Your task to perform on an android device: Go to privacy settings Image 0: 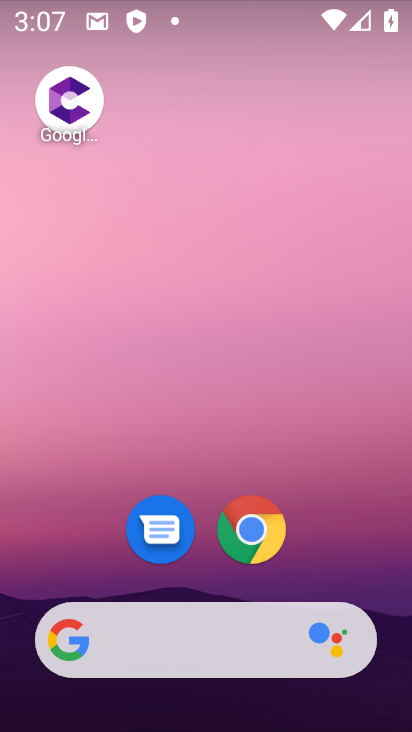
Step 0: drag from (163, 594) to (201, 49)
Your task to perform on an android device: Go to privacy settings Image 1: 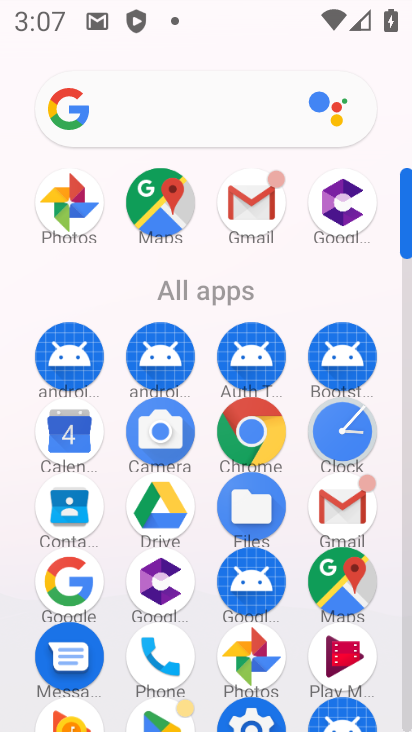
Step 1: drag from (300, 683) to (260, 248)
Your task to perform on an android device: Go to privacy settings Image 2: 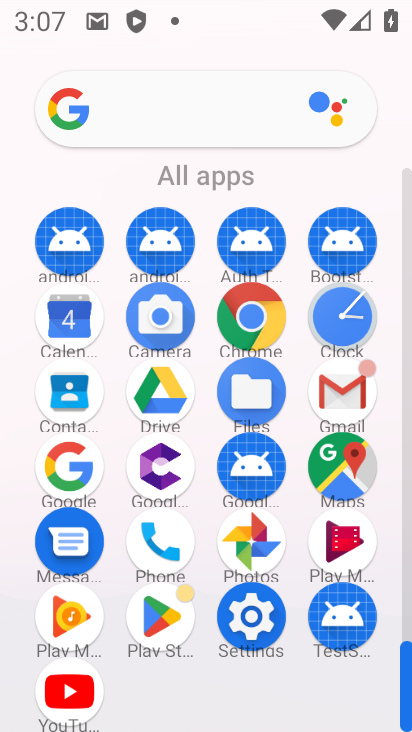
Step 2: click (252, 623)
Your task to perform on an android device: Go to privacy settings Image 3: 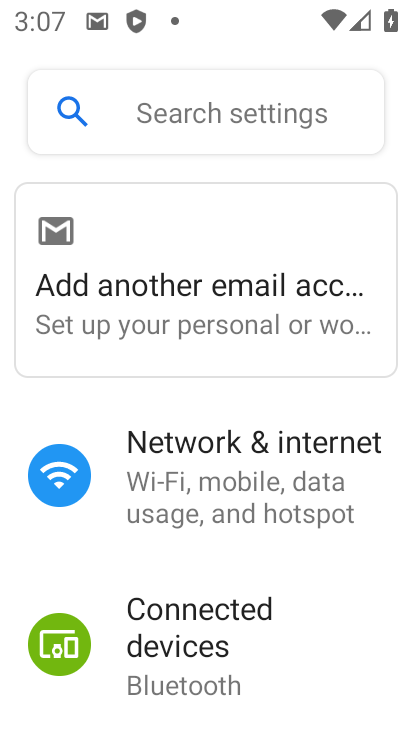
Step 3: drag from (191, 595) to (175, 233)
Your task to perform on an android device: Go to privacy settings Image 4: 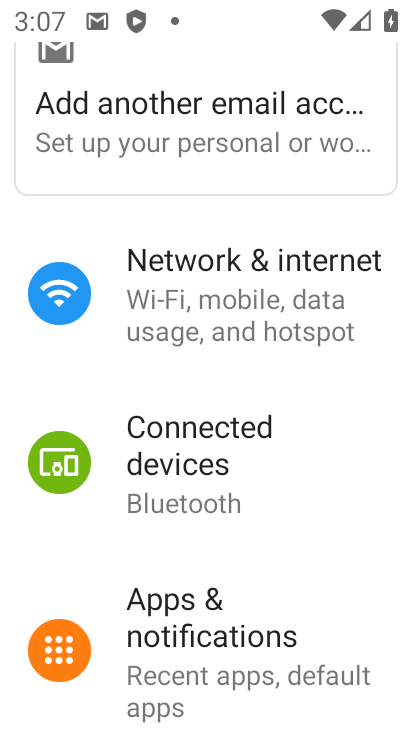
Step 4: drag from (186, 581) to (173, 248)
Your task to perform on an android device: Go to privacy settings Image 5: 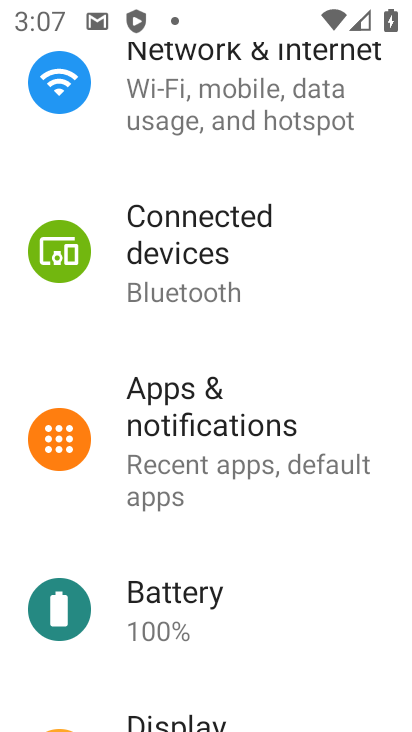
Step 5: drag from (145, 678) to (129, 305)
Your task to perform on an android device: Go to privacy settings Image 6: 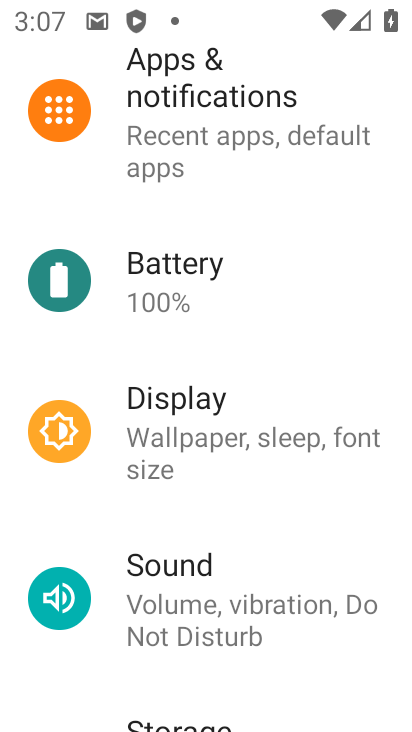
Step 6: drag from (161, 573) to (204, 241)
Your task to perform on an android device: Go to privacy settings Image 7: 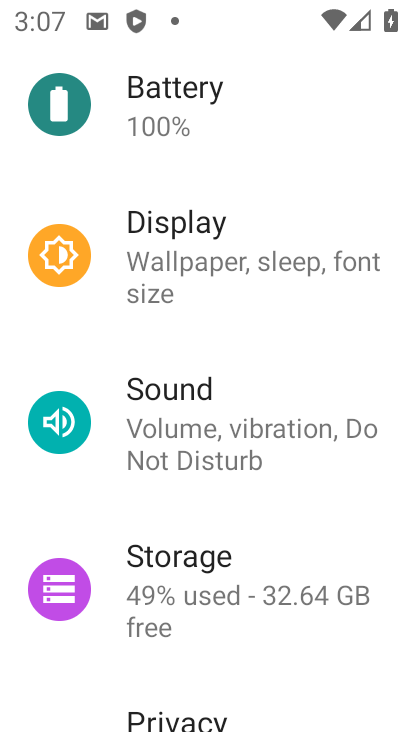
Step 7: click (157, 715)
Your task to perform on an android device: Go to privacy settings Image 8: 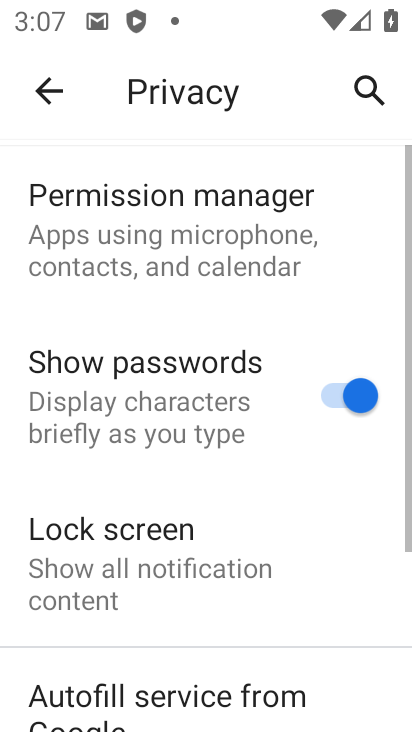
Step 8: drag from (133, 706) to (133, 267)
Your task to perform on an android device: Go to privacy settings Image 9: 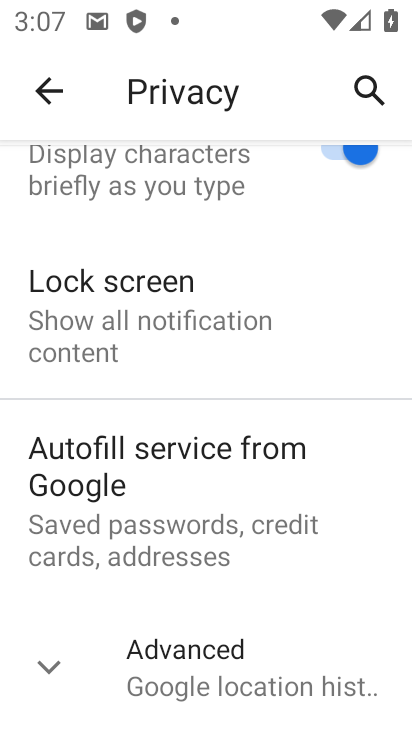
Step 9: click (53, 654)
Your task to perform on an android device: Go to privacy settings Image 10: 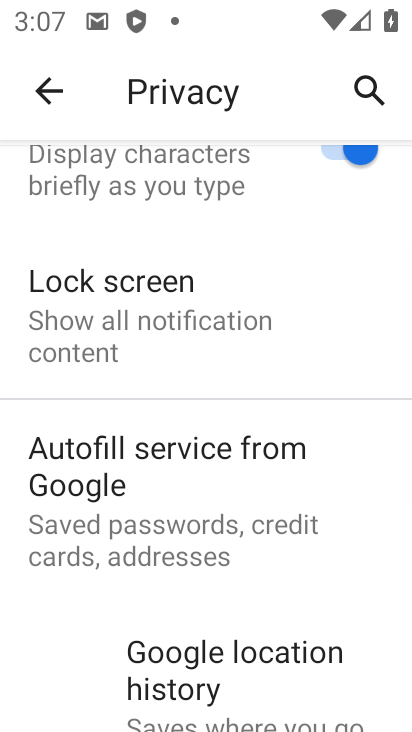
Step 10: task complete